Your task to perform on an android device: Open Google Chrome Image 0: 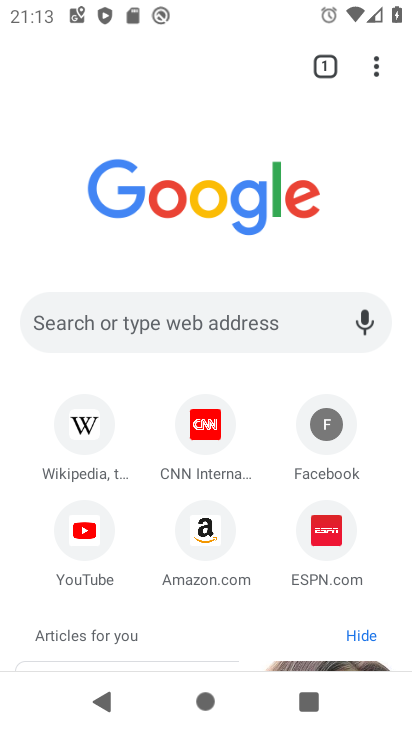
Step 0: task complete